Your task to perform on an android device: Go to Android settings Image 0: 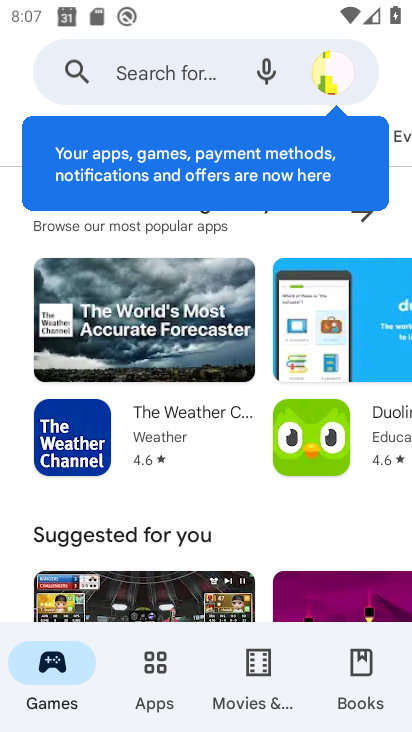
Step 0: press home button
Your task to perform on an android device: Go to Android settings Image 1: 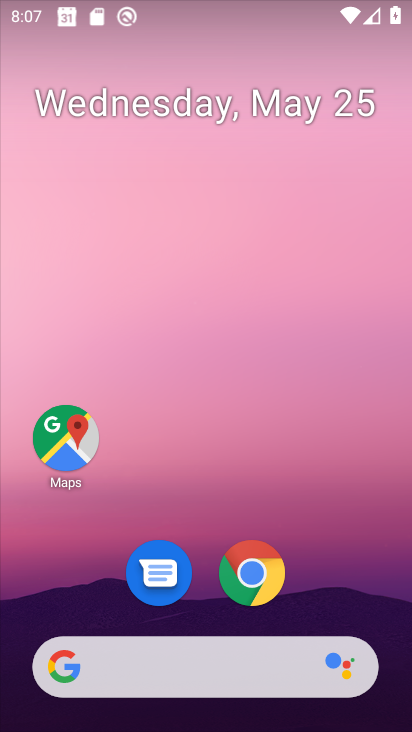
Step 1: drag from (400, 701) to (321, 180)
Your task to perform on an android device: Go to Android settings Image 2: 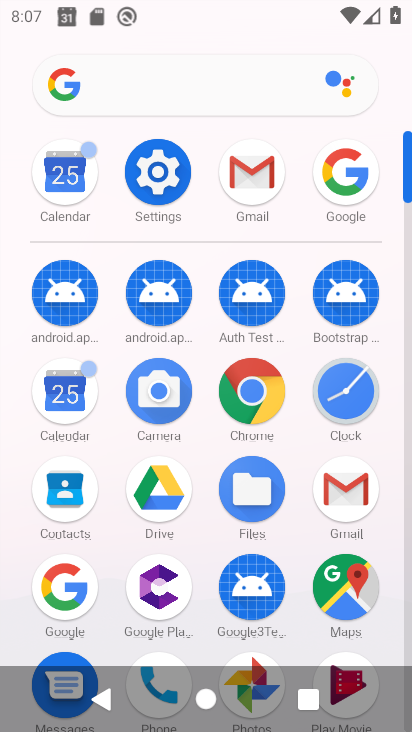
Step 2: click (167, 174)
Your task to perform on an android device: Go to Android settings Image 3: 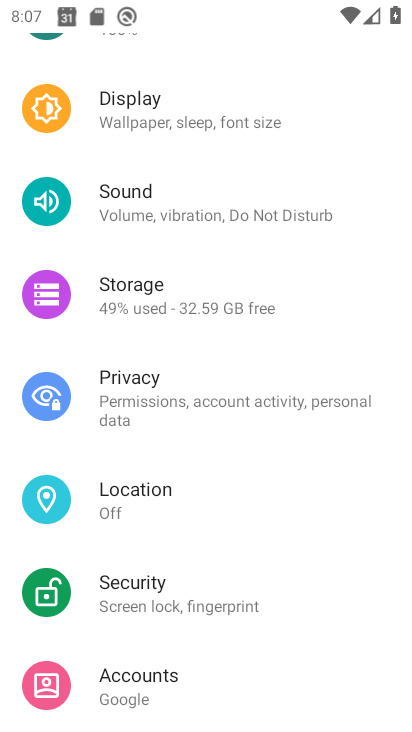
Step 3: task complete